Your task to perform on an android device: Play the last video I watched on Youtube Image 0: 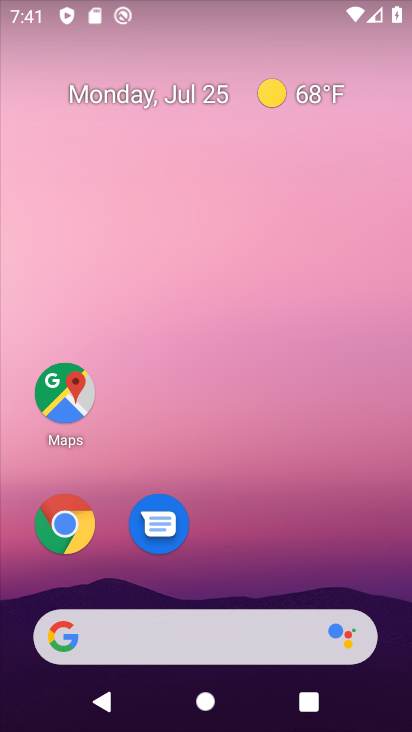
Step 0: drag from (221, 531) to (279, 13)
Your task to perform on an android device: Play the last video I watched on Youtube Image 1: 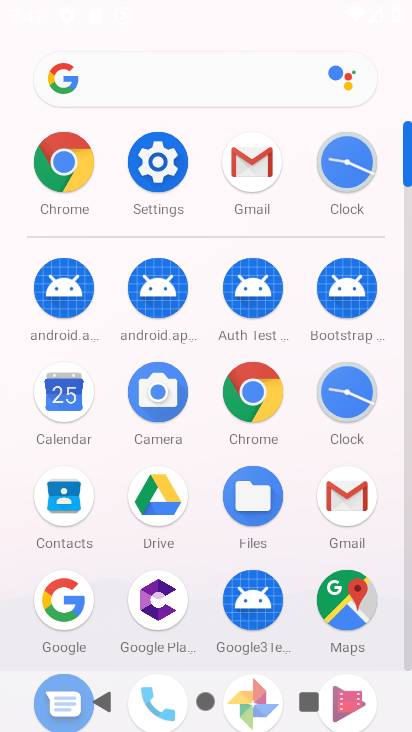
Step 1: drag from (217, 564) to (269, 120)
Your task to perform on an android device: Play the last video I watched on Youtube Image 2: 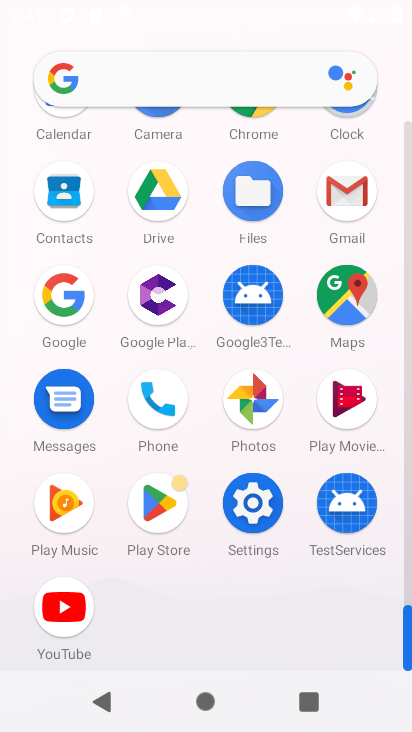
Step 2: click (71, 605)
Your task to perform on an android device: Play the last video I watched on Youtube Image 3: 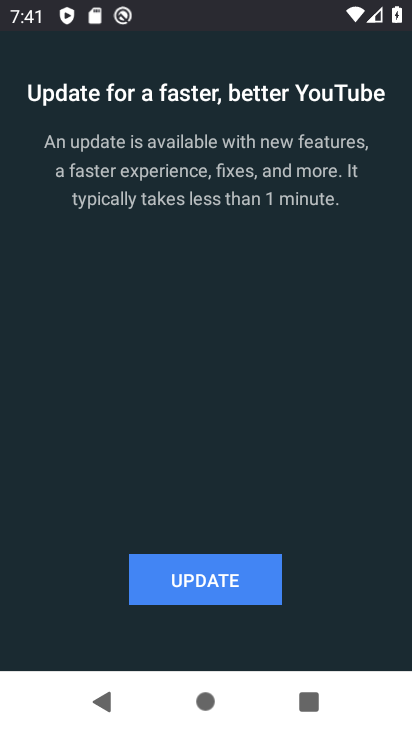
Step 3: click (185, 572)
Your task to perform on an android device: Play the last video I watched on Youtube Image 4: 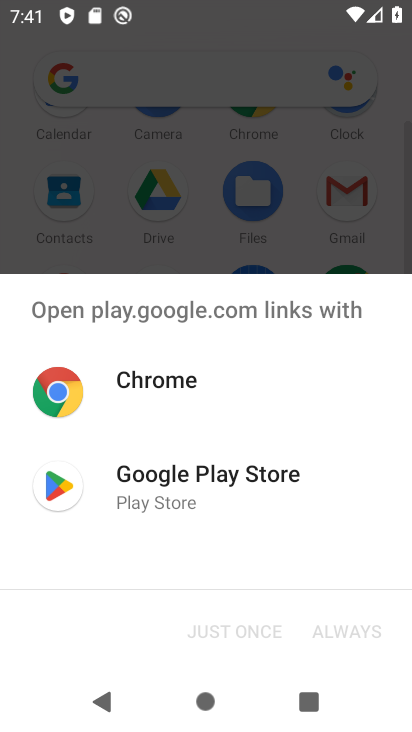
Step 4: click (191, 496)
Your task to perform on an android device: Play the last video I watched on Youtube Image 5: 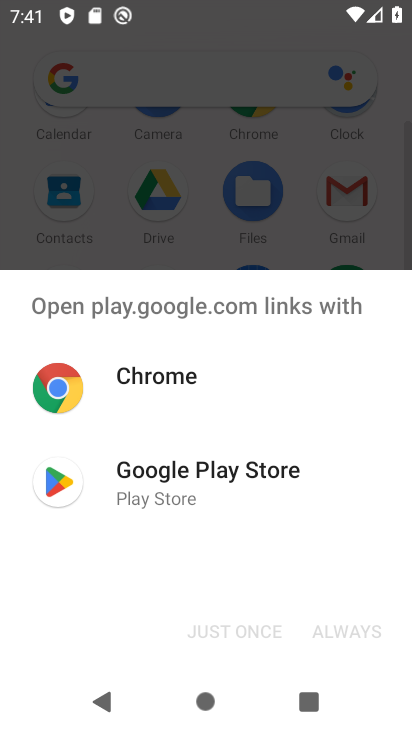
Step 5: click (199, 487)
Your task to perform on an android device: Play the last video I watched on Youtube Image 6: 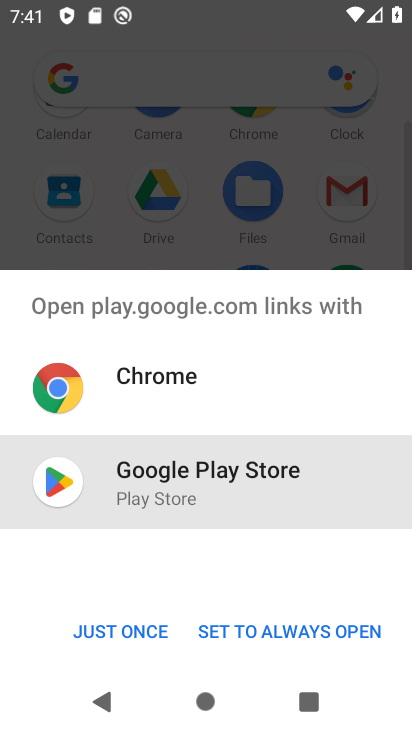
Step 6: click (148, 628)
Your task to perform on an android device: Play the last video I watched on Youtube Image 7: 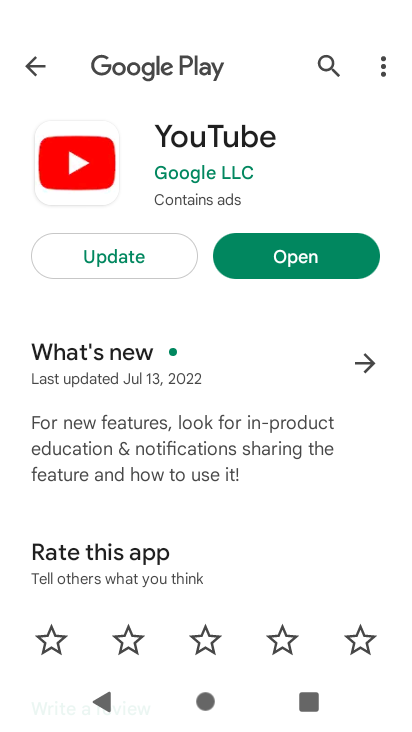
Step 7: click (155, 262)
Your task to perform on an android device: Play the last video I watched on Youtube Image 8: 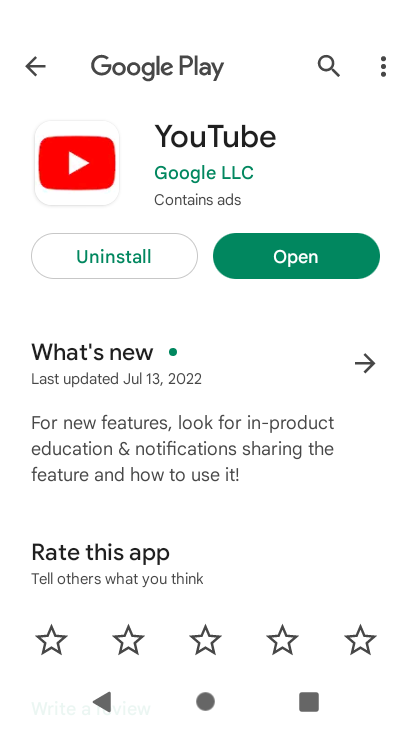
Step 8: click (327, 259)
Your task to perform on an android device: Play the last video I watched on Youtube Image 9: 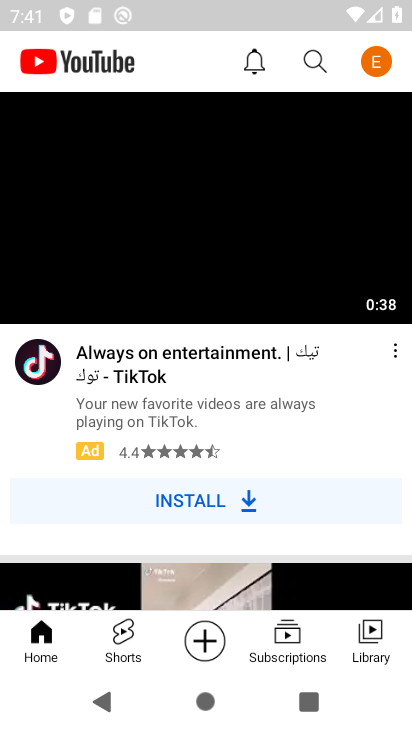
Step 9: click (368, 637)
Your task to perform on an android device: Play the last video I watched on Youtube Image 10: 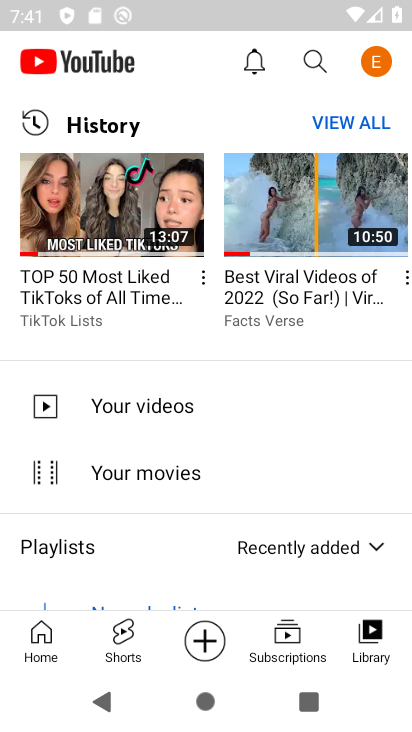
Step 10: click (133, 193)
Your task to perform on an android device: Play the last video I watched on Youtube Image 11: 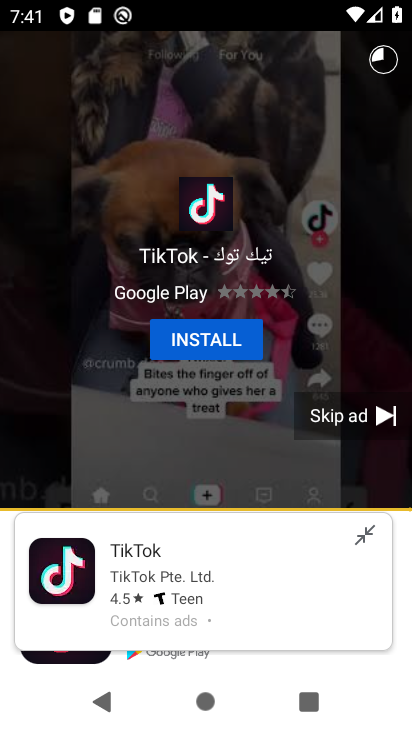
Step 11: task complete